Your task to perform on an android device: Go to wifi settings Image 0: 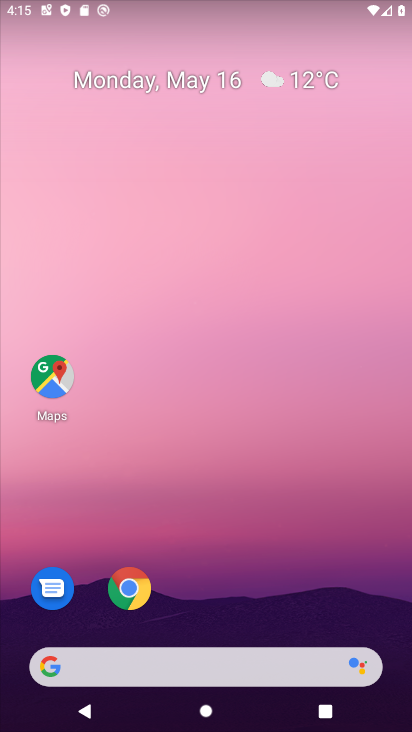
Step 0: drag from (255, 587) to (262, 143)
Your task to perform on an android device: Go to wifi settings Image 1: 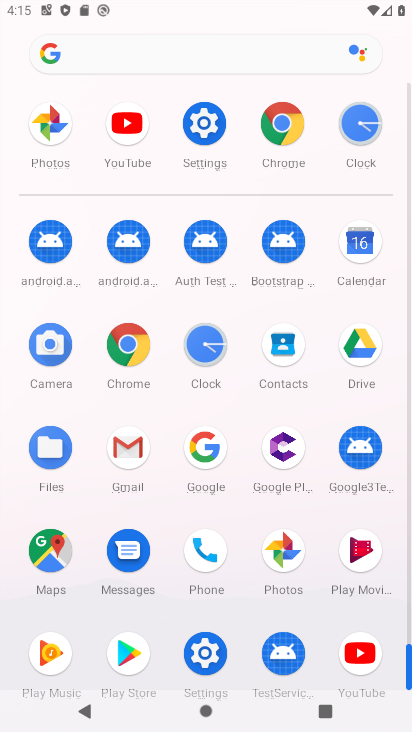
Step 1: click (196, 124)
Your task to perform on an android device: Go to wifi settings Image 2: 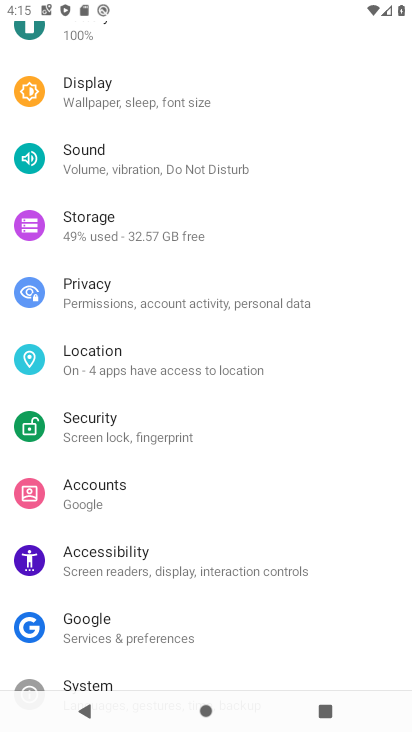
Step 2: drag from (205, 119) to (198, 473)
Your task to perform on an android device: Go to wifi settings Image 3: 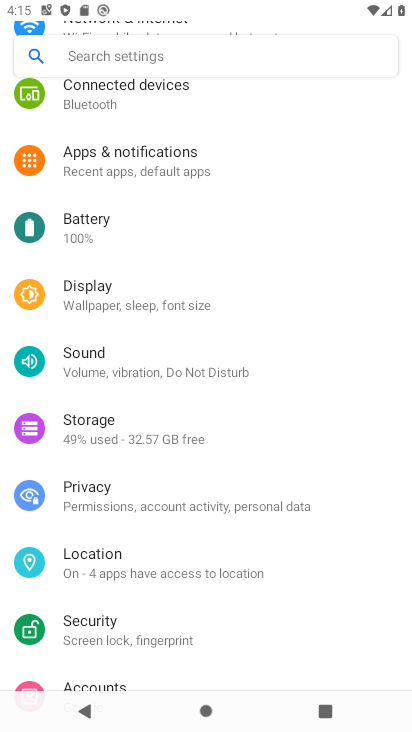
Step 3: drag from (262, 91) to (310, 555)
Your task to perform on an android device: Go to wifi settings Image 4: 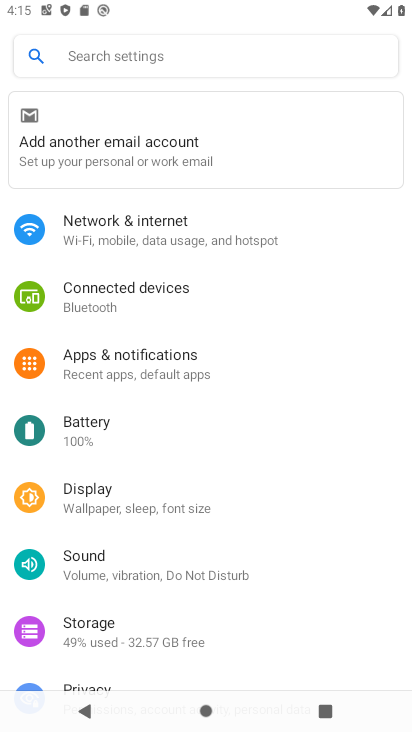
Step 4: click (230, 223)
Your task to perform on an android device: Go to wifi settings Image 5: 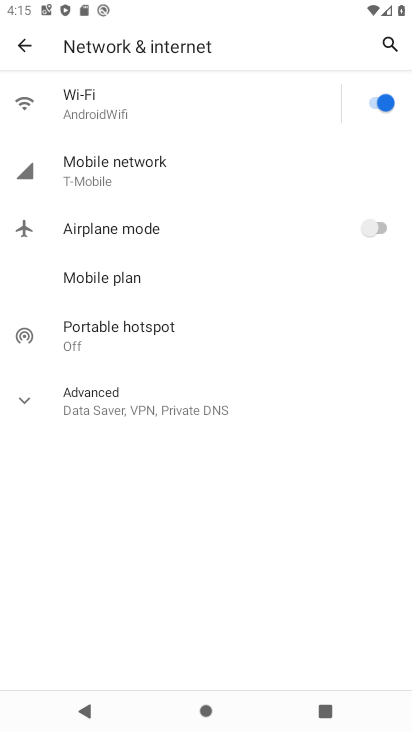
Step 5: click (153, 104)
Your task to perform on an android device: Go to wifi settings Image 6: 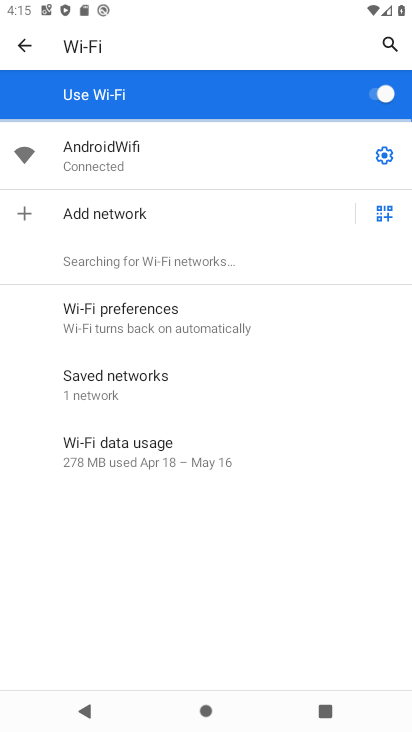
Step 6: task complete